Your task to perform on an android device: toggle wifi Image 0: 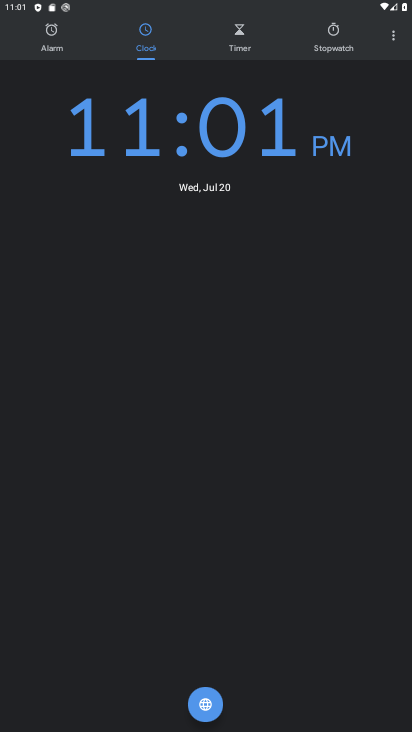
Step 0: press home button
Your task to perform on an android device: toggle wifi Image 1: 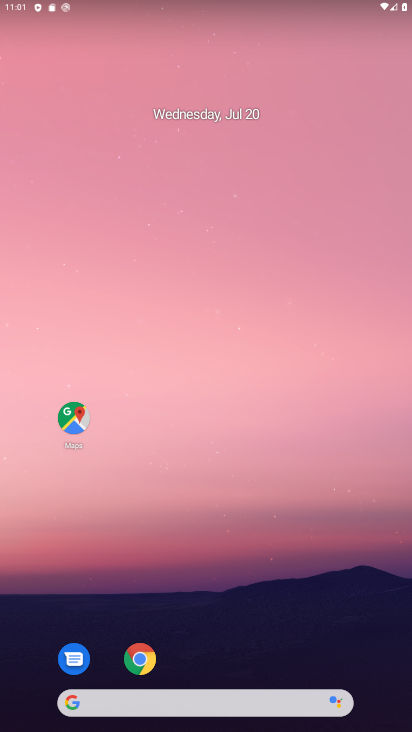
Step 1: drag from (214, 703) to (213, 222)
Your task to perform on an android device: toggle wifi Image 2: 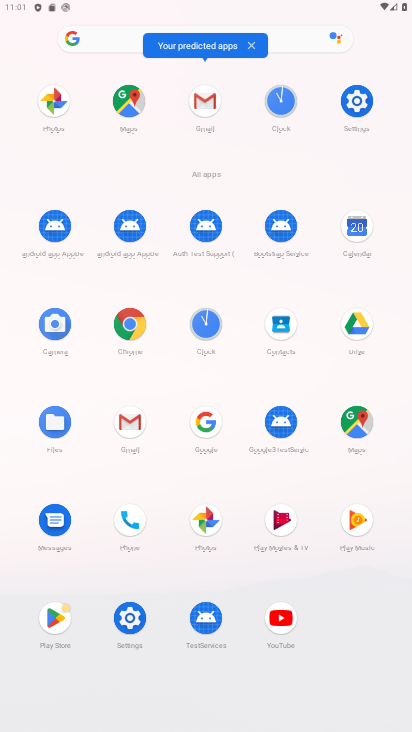
Step 2: click (359, 98)
Your task to perform on an android device: toggle wifi Image 3: 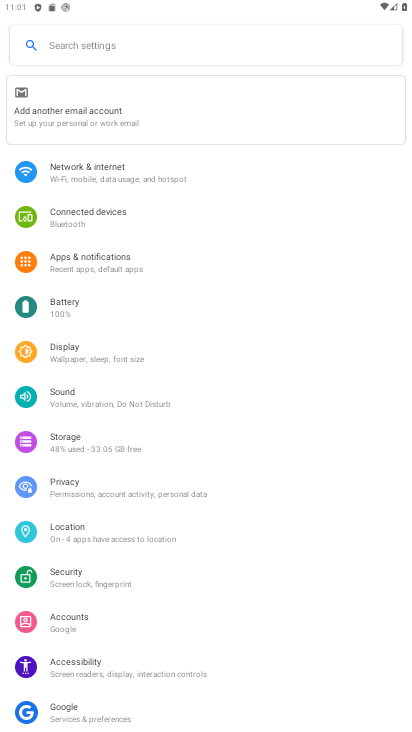
Step 3: click (78, 169)
Your task to perform on an android device: toggle wifi Image 4: 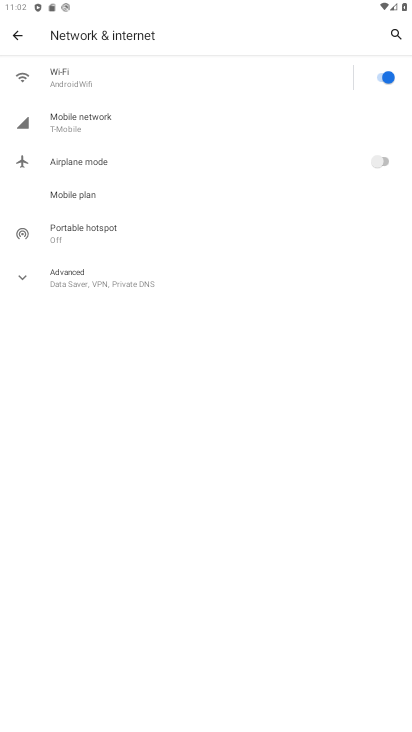
Step 4: click (381, 77)
Your task to perform on an android device: toggle wifi Image 5: 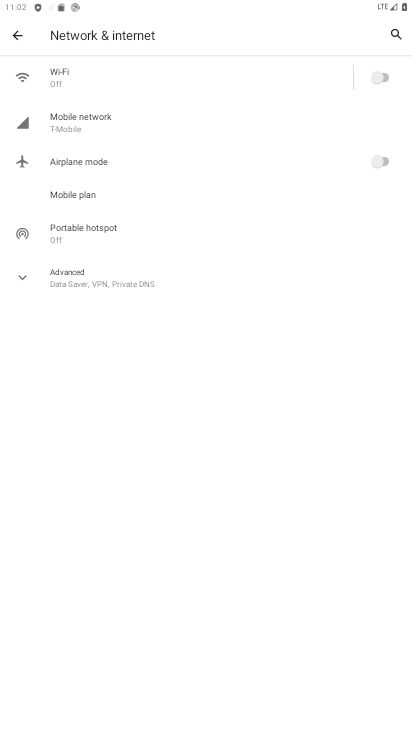
Step 5: task complete